Your task to perform on an android device: Open Google Maps and go to "Timeline" Image 0: 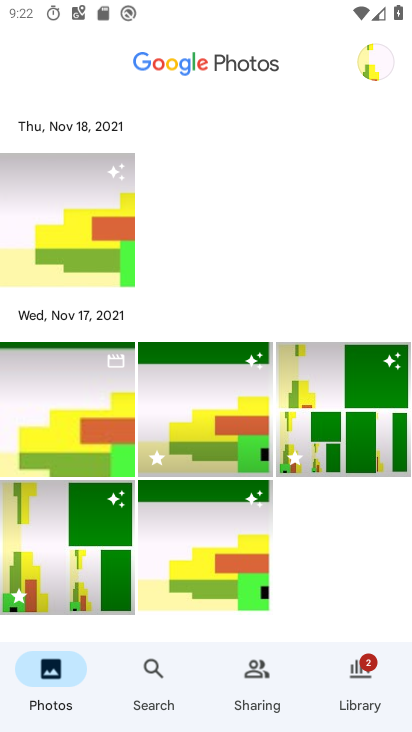
Step 0: click (63, 44)
Your task to perform on an android device: Open Google Maps and go to "Timeline" Image 1: 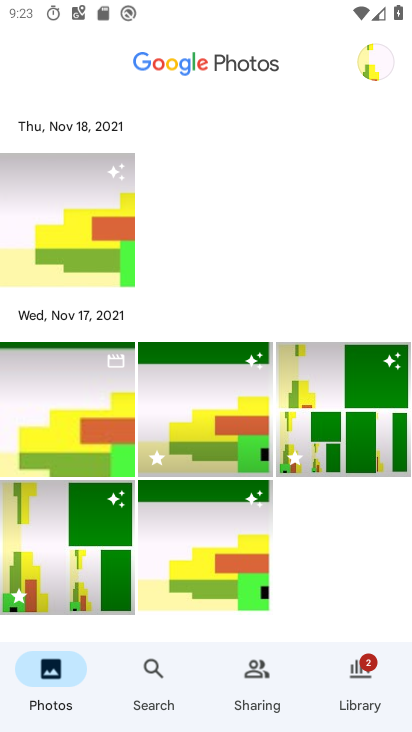
Step 1: press back button
Your task to perform on an android device: Open Google Maps and go to "Timeline" Image 2: 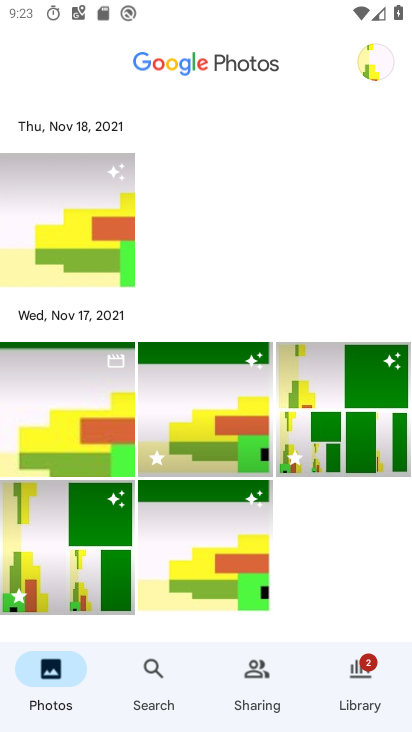
Step 2: press back button
Your task to perform on an android device: Open Google Maps and go to "Timeline" Image 3: 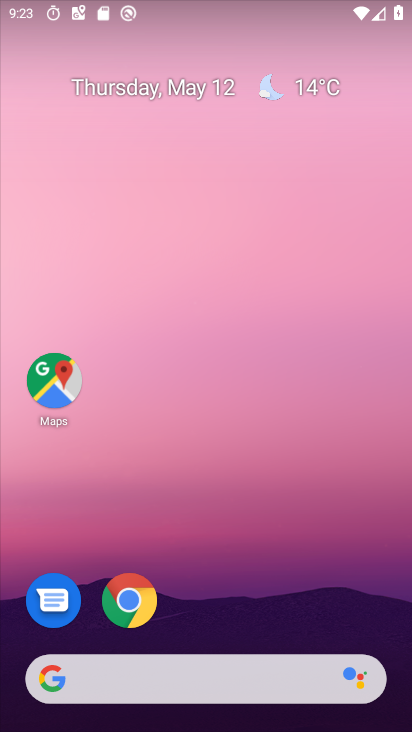
Step 3: press back button
Your task to perform on an android device: Open Google Maps and go to "Timeline" Image 4: 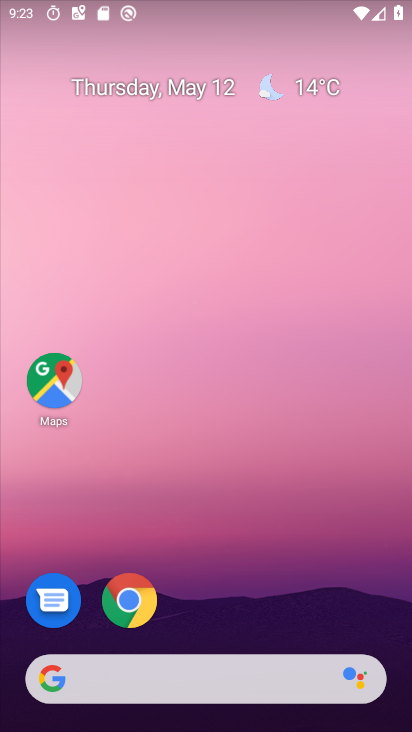
Step 4: press back button
Your task to perform on an android device: Open Google Maps and go to "Timeline" Image 5: 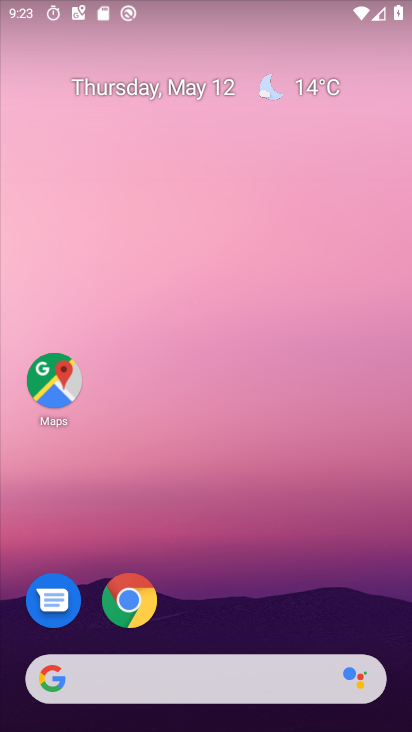
Step 5: drag from (107, 386) to (35, 179)
Your task to perform on an android device: Open Google Maps and go to "Timeline" Image 6: 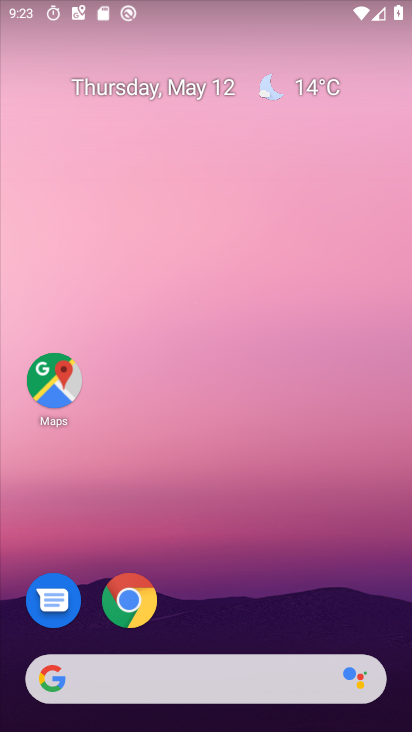
Step 6: drag from (178, 303) to (157, 100)
Your task to perform on an android device: Open Google Maps and go to "Timeline" Image 7: 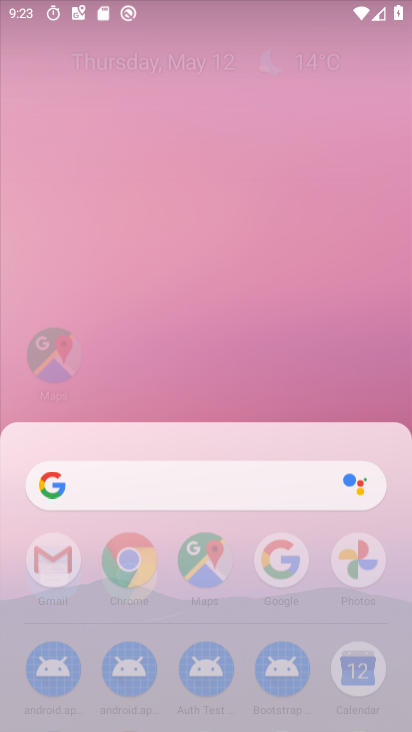
Step 7: drag from (206, 249) to (190, 45)
Your task to perform on an android device: Open Google Maps and go to "Timeline" Image 8: 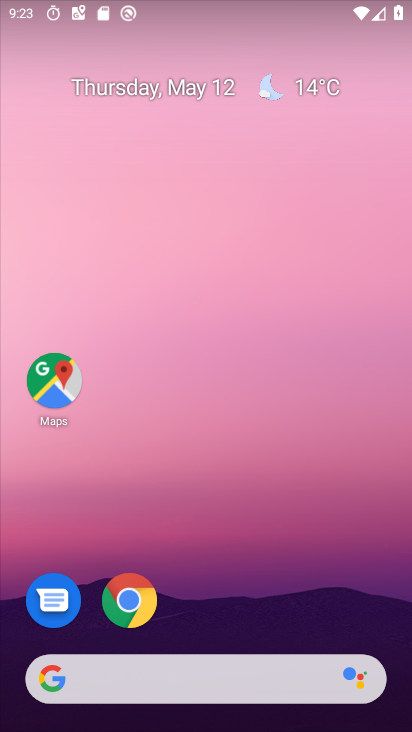
Step 8: drag from (241, 375) to (97, 11)
Your task to perform on an android device: Open Google Maps and go to "Timeline" Image 9: 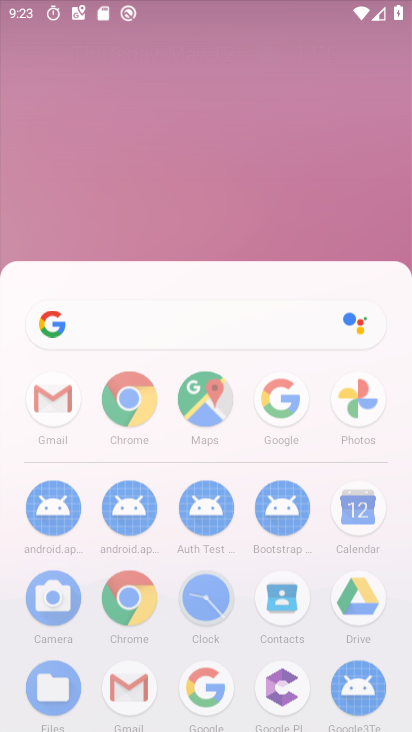
Step 9: drag from (281, 438) to (139, 4)
Your task to perform on an android device: Open Google Maps and go to "Timeline" Image 10: 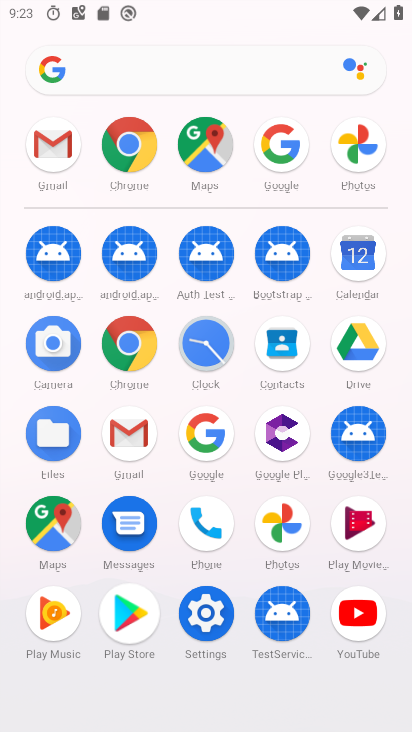
Step 10: click (200, 151)
Your task to perform on an android device: Open Google Maps and go to "Timeline" Image 11: 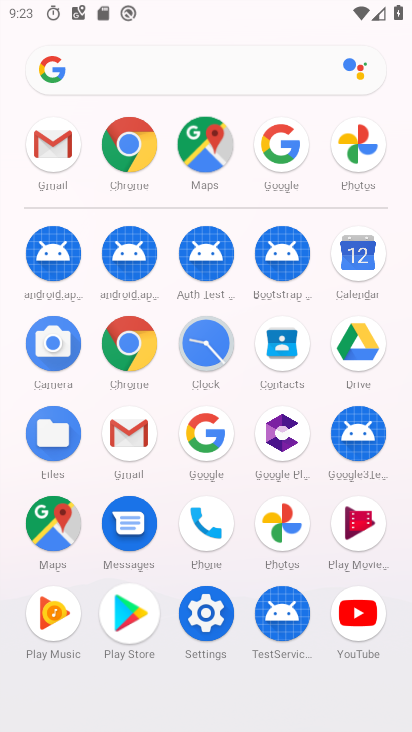
Step 11: click (201, 149)
Your task to perform on an android device: Open Google Maps and go to "Timeline" Image 12: 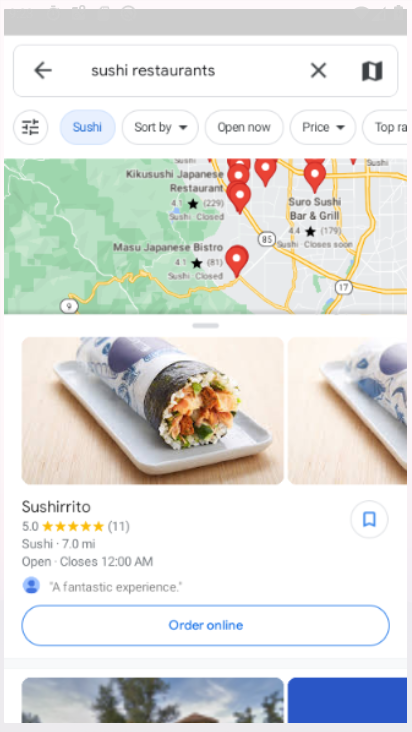
Step 12: click (201, 149)
Your task to perform on an android device: Open Google Maps and go to "Timeline" Image 13: 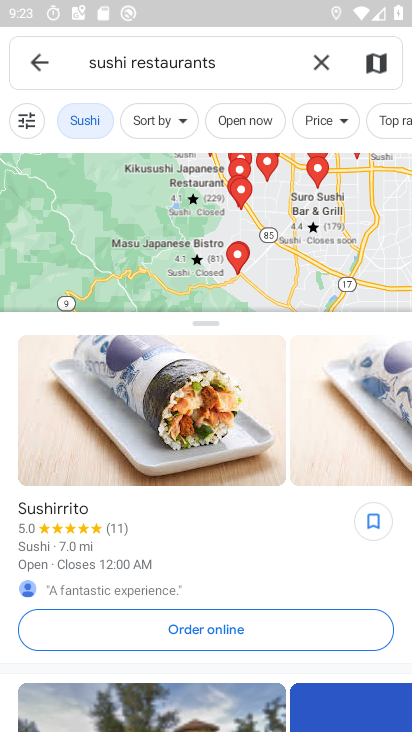
Step 13: click (36, 58)
Your task to perform on an android device: Open Google Maps and go to "Timeline" Image 14: 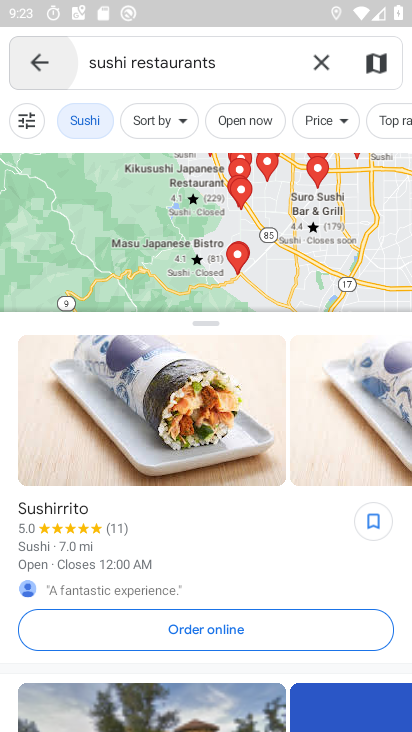
Step 14: click (33, 60)
Your task to perform on an android device: Open Google Maps and go to "Timeline" Image 15: 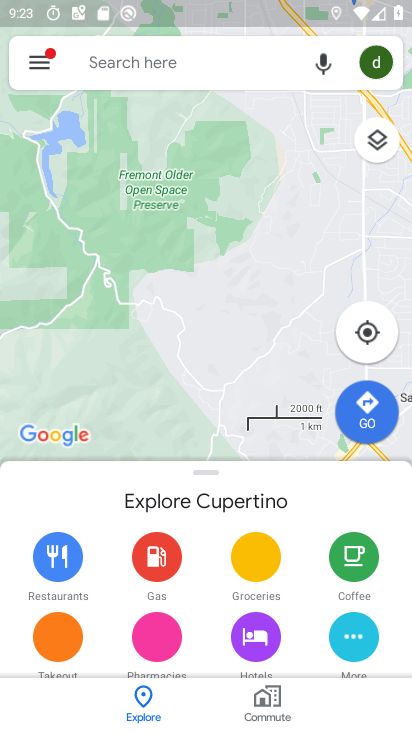
Step 15: click (34, 61)
Your task to perform on an android device: Open Google Maps and go to "Timeline" Image 16: 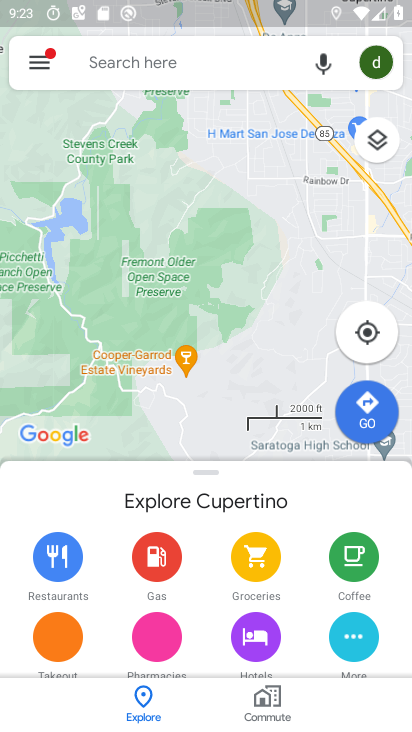
Step 16: click (34, 61)
Your task to perform on an android device: Open Google Maps and go to "Timeline" Image 17: 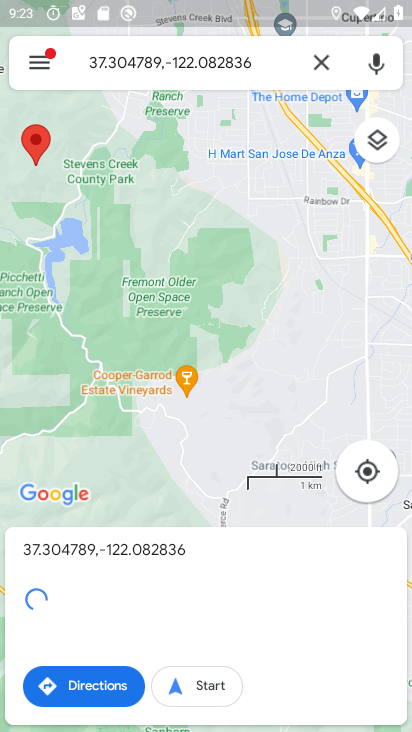
Step 17: click (40, 60)
Your task to perform on an android device: Open Google Maps and go to "Timeline" Image 18: 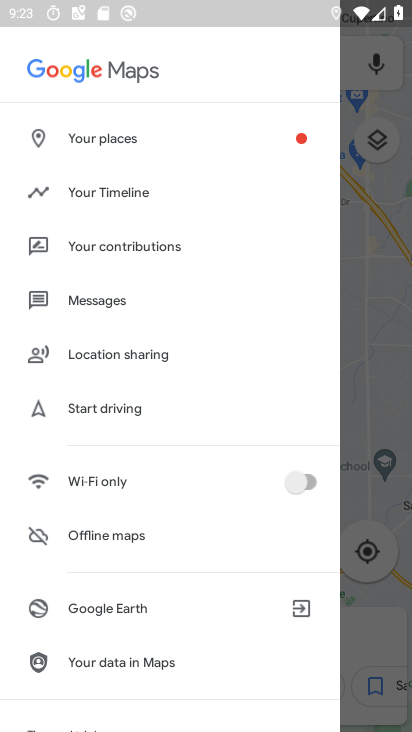
Step 18: click (113, 183)
Your task to perform on an android device: Open Google Maps and go to "Timeline" Image 19: 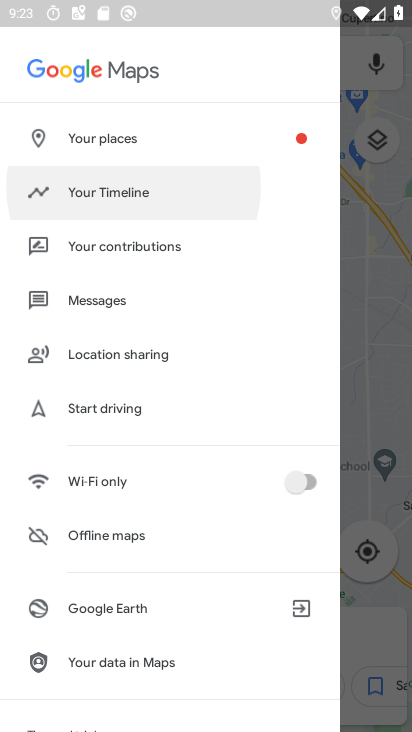
Step 19: click (113, 184)
Your task to perform on an android device: Open Google Maps and go to "Timeline" Image 20: 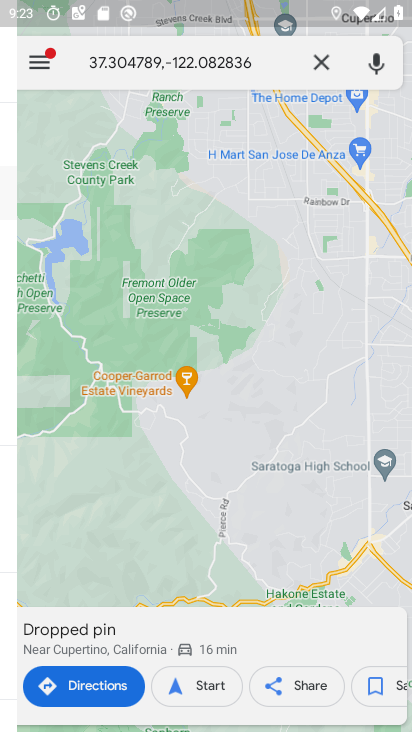
Step 20: click (113, 188)
Your task to perform on an android device: Open Google Maps and go to "Timeline" Image 21: 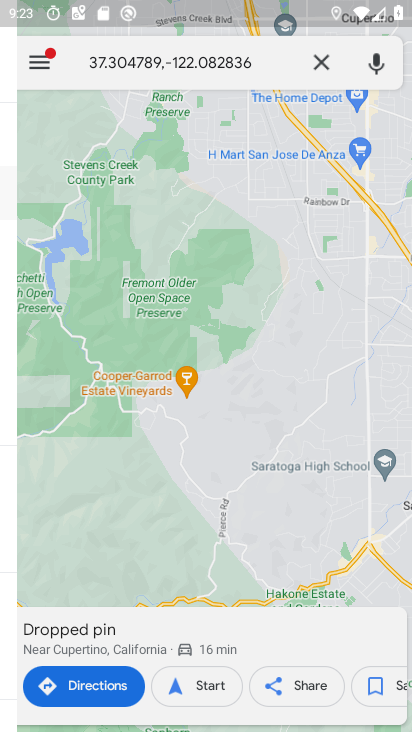
Step 21: click (113, 188)
Your task to perform on an android device: Open Google Maps and go to "Timeline" Image 22: 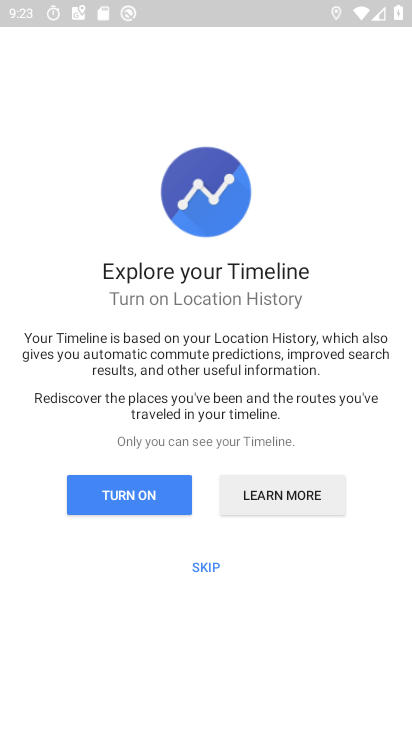
Step 22: click (131, 497)
Your task to perform on an android device: Open Google Maps and go to "Timeline" Image 23: 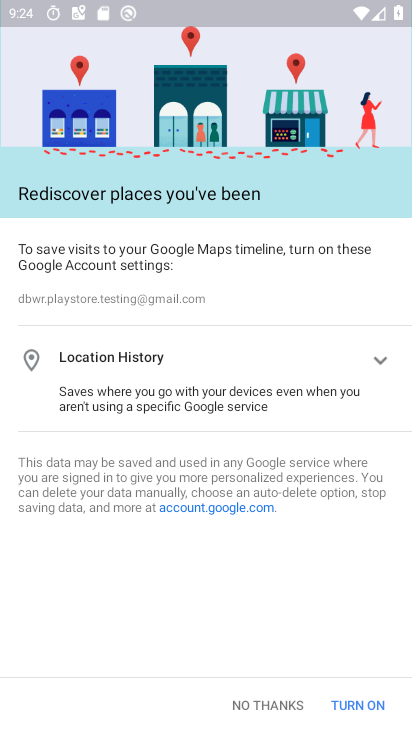
Step 23: task complete